Your task to perform on an android device: What's on my calendar today? Image 0: 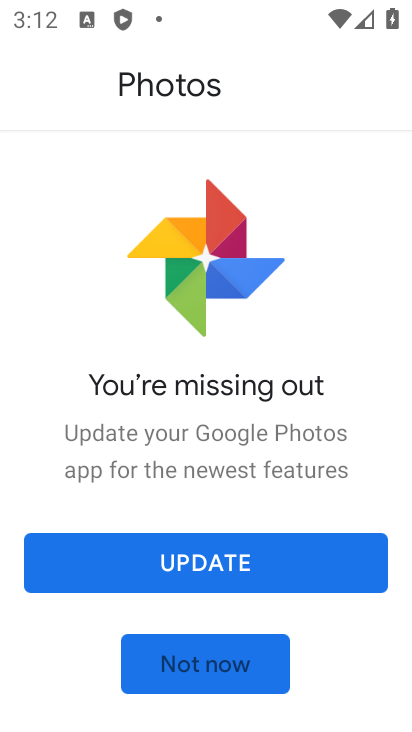
Step 0: press home button
Your task to perform on an android device: What's on my calendar today? Image 1: 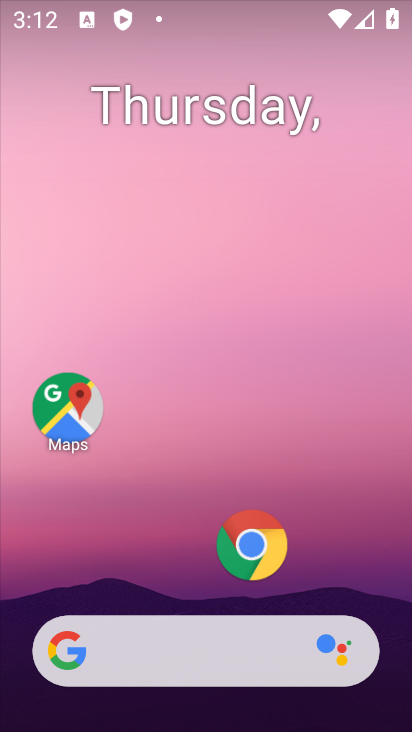
Step 1: drag from (303, 634) to (315, 76)
Your task to perform on an android device: What's on my calendar today? Image 2: 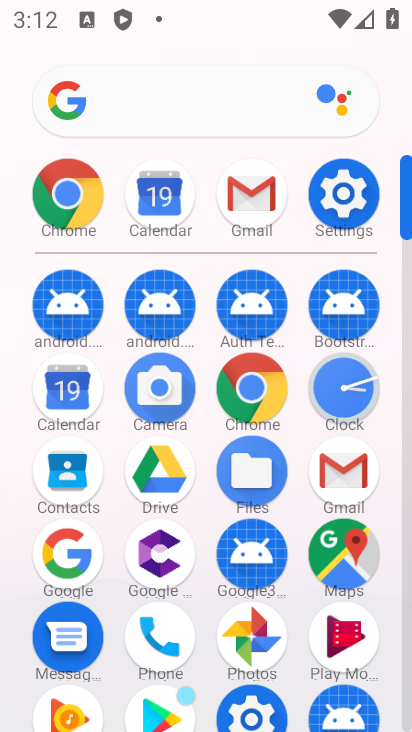
Step 2: click (71, 394)
Your task to perform on an android device: What's on my calendar today? Image 3: 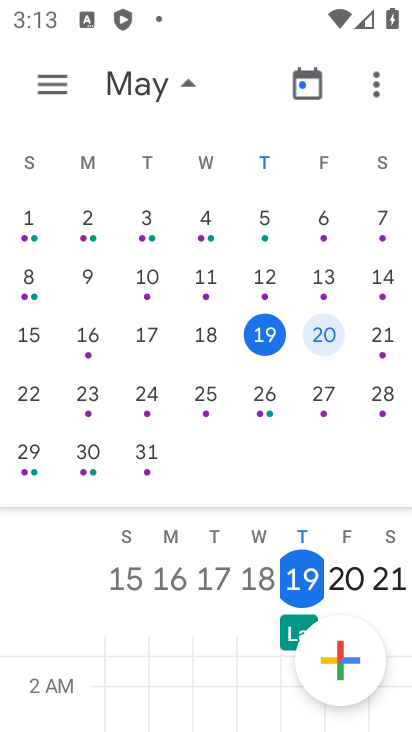
Step 3: task complete